Your task to perform on an android device: Open Reddit.com Image 0: 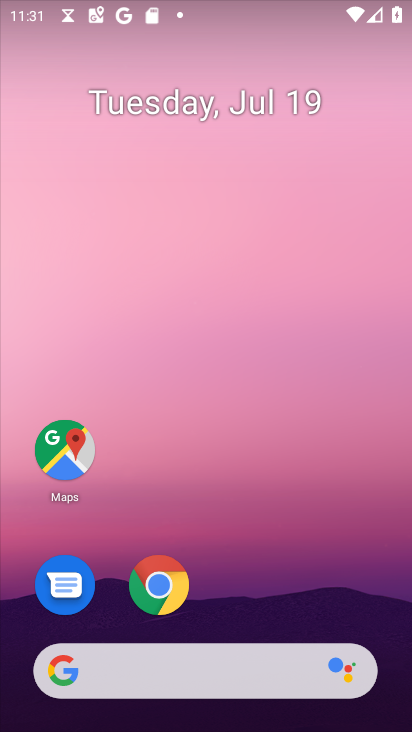
Step 0: press home button
Your task to perform on an android device: Open Reddit.com Image 1: 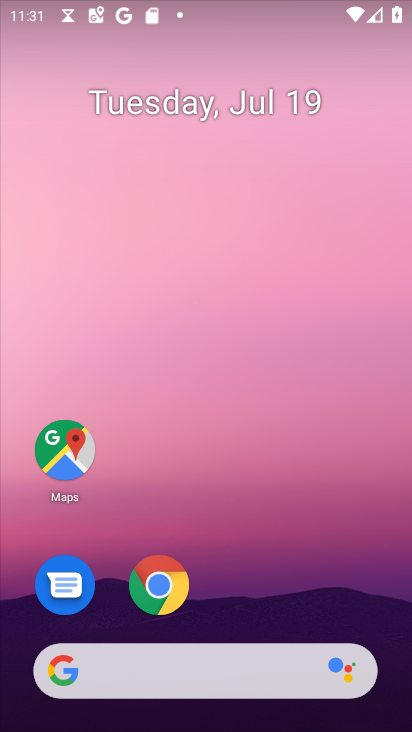
Step 1: click (338, 119)
Your task to perform on an android device: Open Reddit.com Image 2: 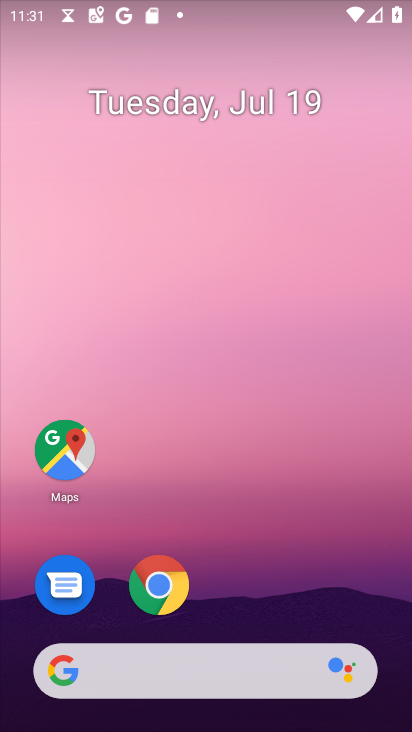
Step 2: click (159, 584)
Your task to perform on an android device: Open Reddit.com Image 3: 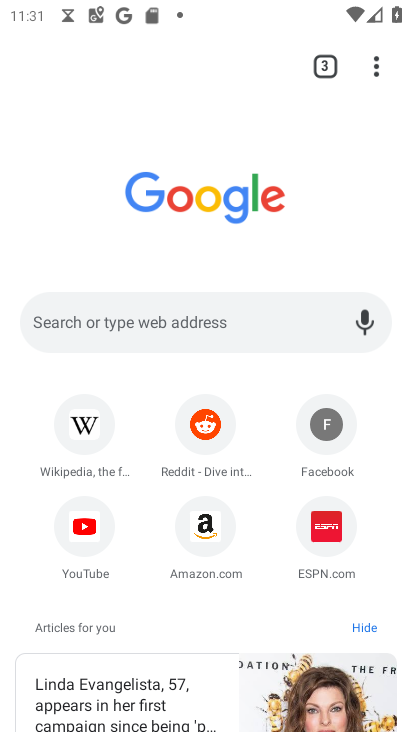
Step 3: click (205, 431)
Your task to perform on an android device: Open Reddit.com Image 4: 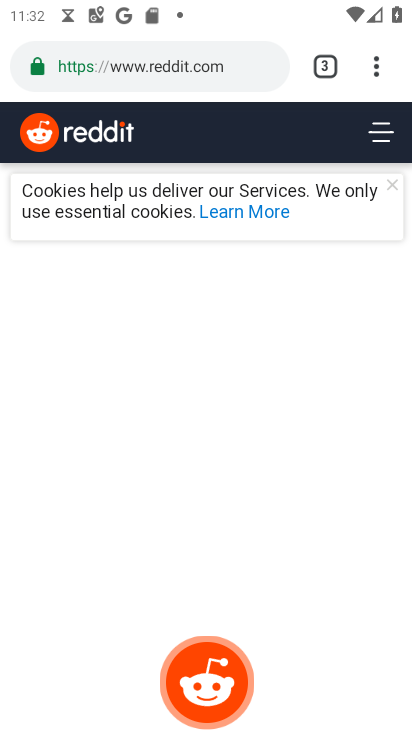
Step 4: task complete